Your task to perform on an android device: Go to Wikipedia Image 0: 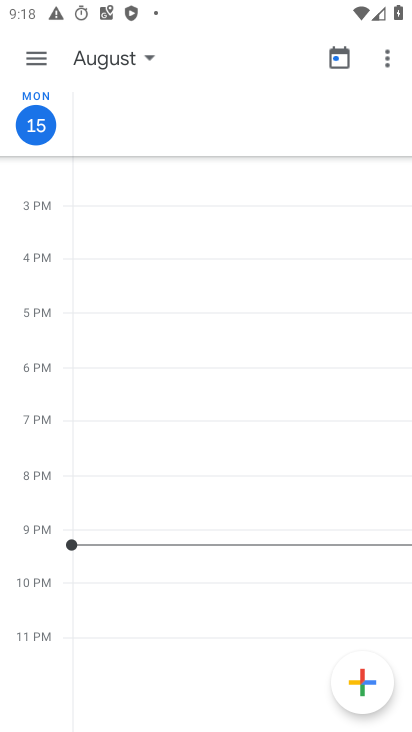
Step 0: press home button
Your task to perform on an android device: Go to Wikipedia Image 1: 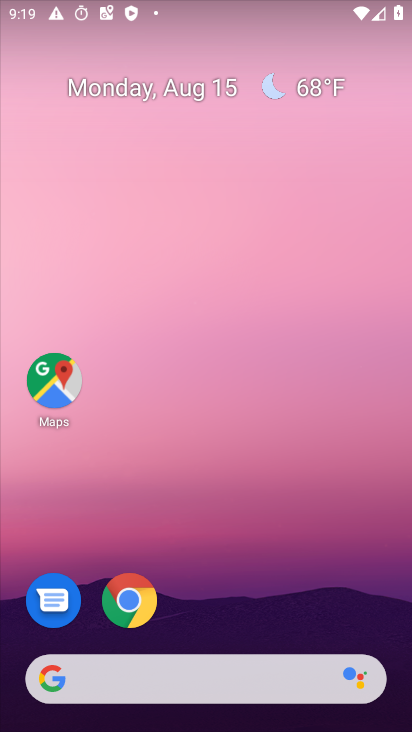
Step 1: click (133, 600)
Your task to perform on an android device: Go to Wikipedia Image 2: 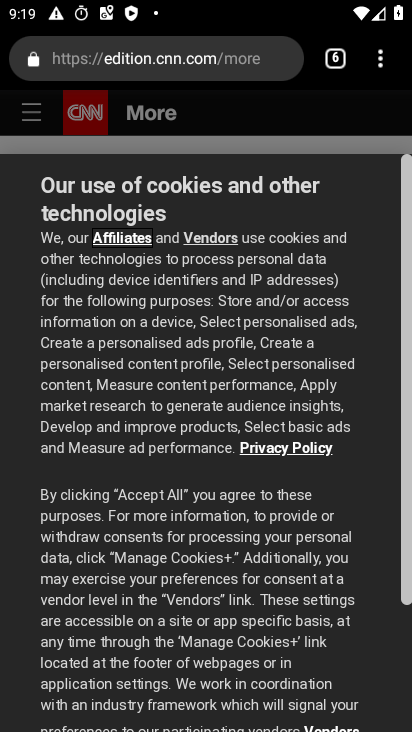
Step 2: click (382, 64)
Your task to perform on an android device: Go to Wikipedia Image 3: 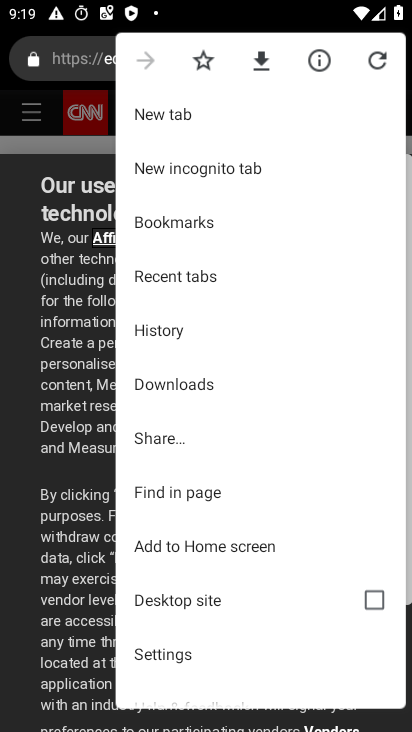
Step 3: click (166, 113)
Your task to perform on an android device: Go to Wikipedia Image 4: 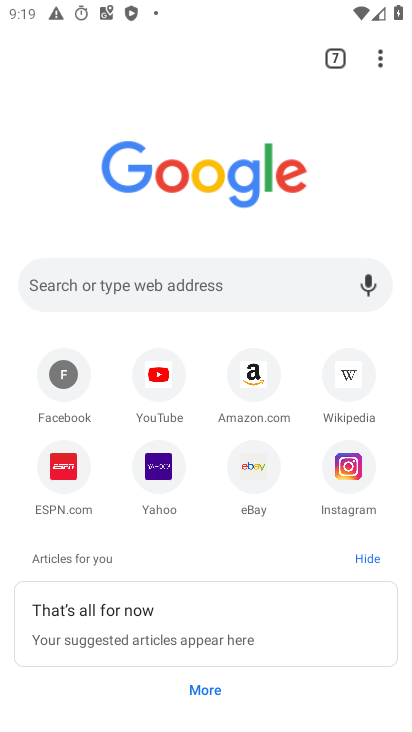
Step 4: click (352, 381)
Your task to perform on an android device: Go to Wikipedia Image 5: 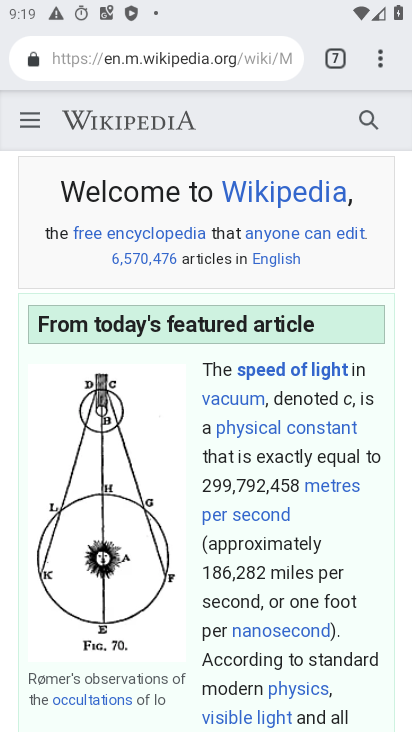
Step 5: task complete